Your task to perform on an android device: Open display settings Image 0: 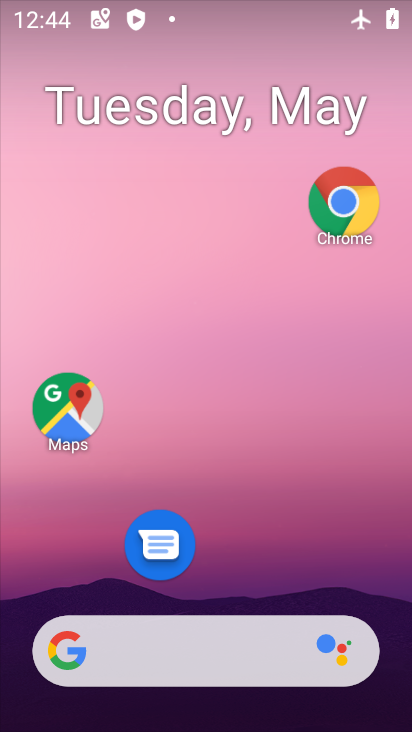
Step 0: drag from (208, 605) to (291, 44)
Your task to perform on an android device: Open display settings Image 1: 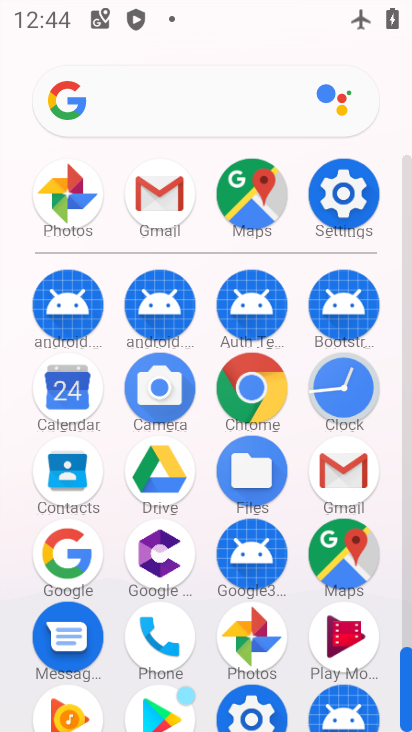
Step 1: click (350, 189)
Your task to perform on an android device: Open display settings Image 2: 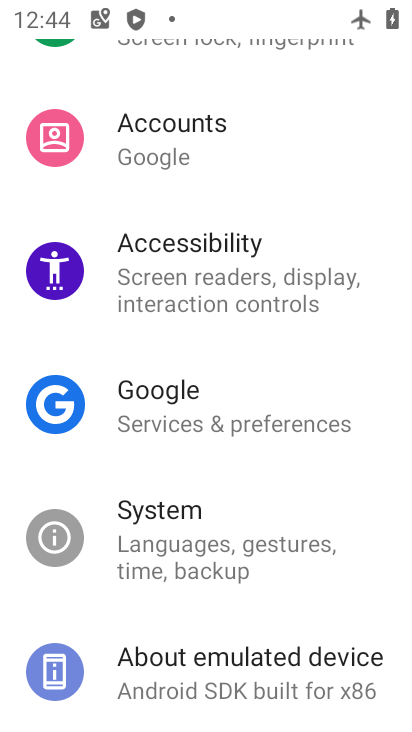
Step 2: drag from (145, 516) to (191, 253)
Your task to perform on an android device: Open display settings Image 3: 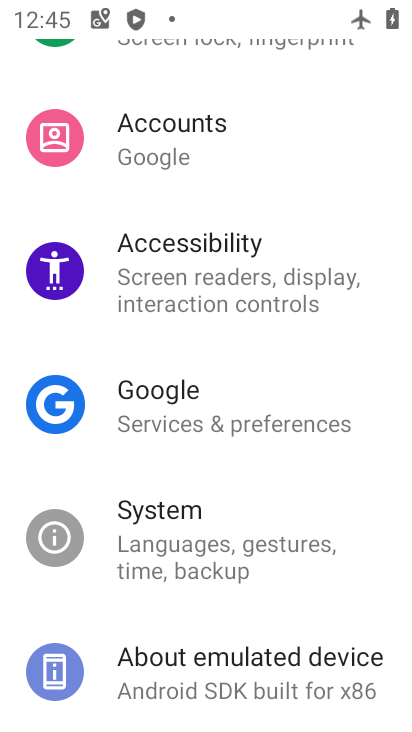
Step 3: drag from (211, 213) to (256, 682)
Your task to perform on an android device: Open display settings Image 4: 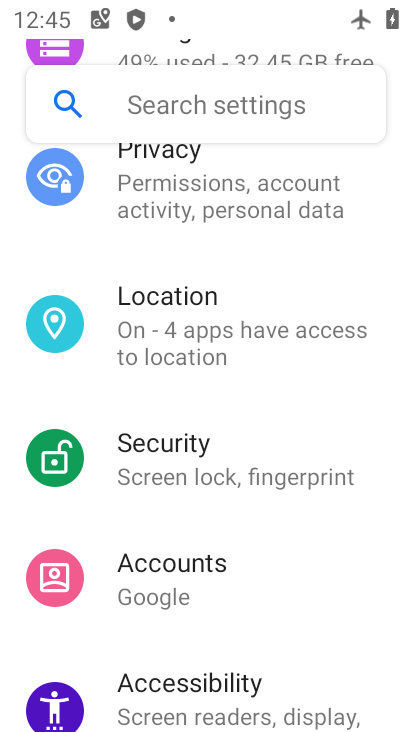
Step 4: drag from (229, 219) to (219, 630)
Your task to perform on an android device: Open display settings Image 5: 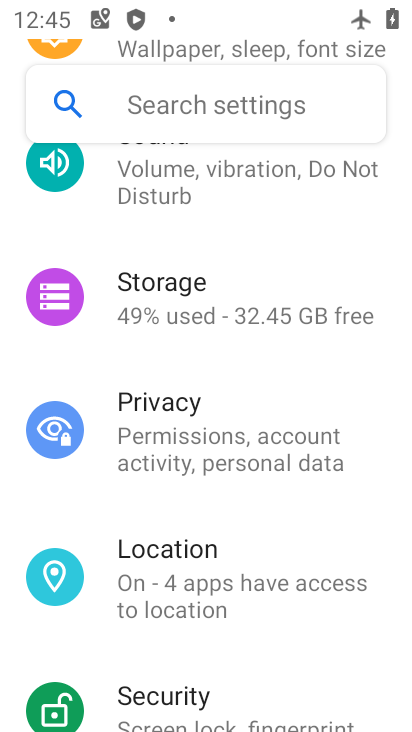
Step 5: drag from (178, 298) to (182, 585)
Your task to perform on an android device: Open display settings Image 6: 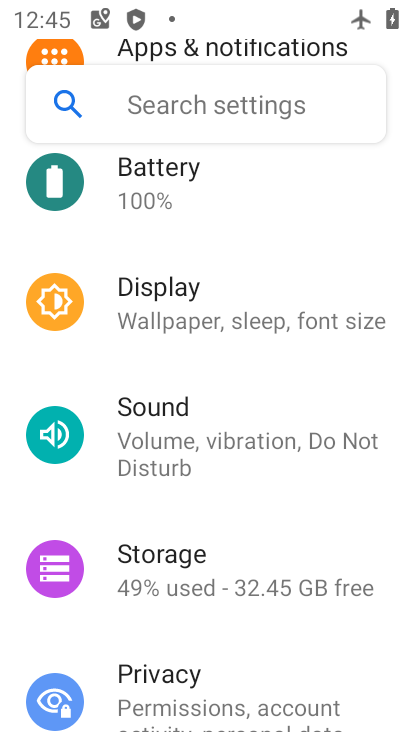
Step 6: click (222, 311)
Your task to perform on an android device: Open display settings Image 7: 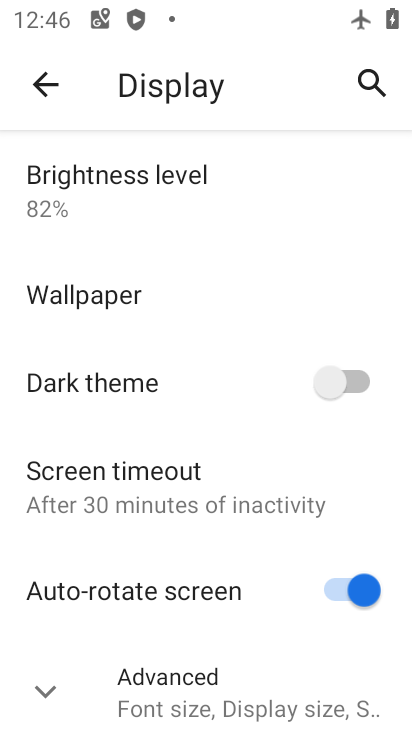
Step 7: task complete